Your task to perform on an android device: Open Chrome and go to settings Image 0: 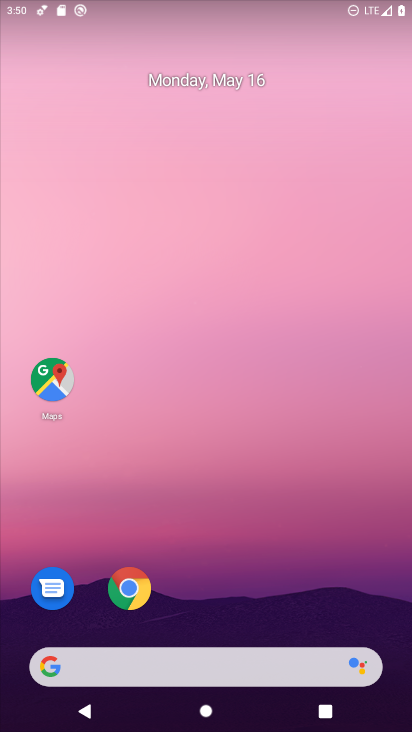
Step 0: click (123, 598)
Your task to perform on an android device: Open Chrome and go to settings Image 1: 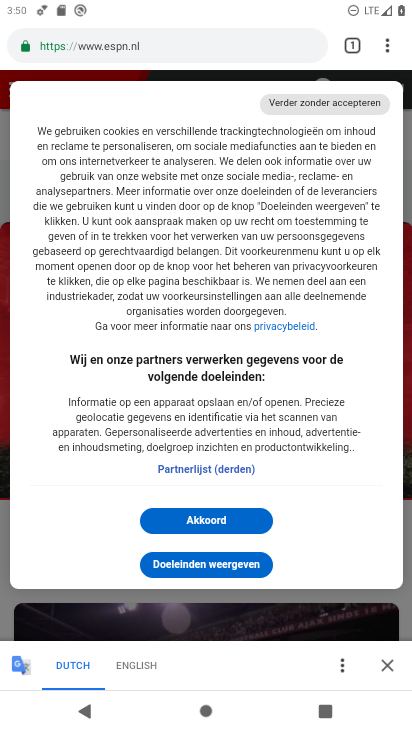
Step 1: click (389, 53)
Your task to perform on an android device: Open Chrome and go to settings Image 2: 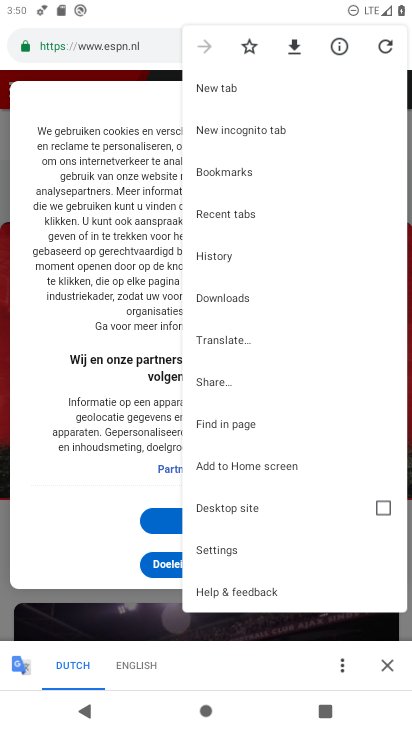
Step 2: click (221, 553)
Your task to perform on an android device: Open Chrome and go to settings Image 3: 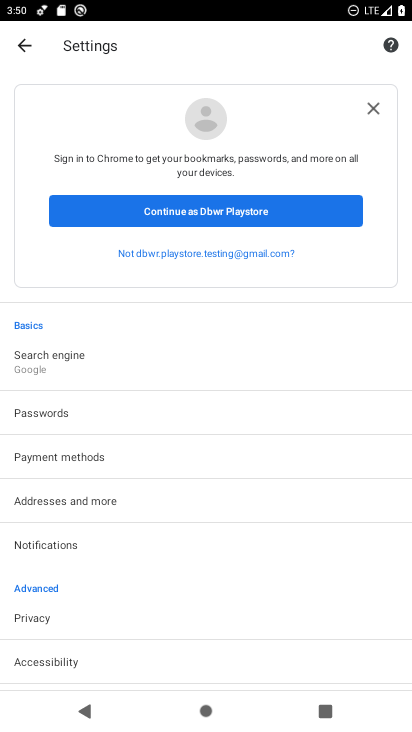
Step 3: task complete